Your task to perform on an android device: Open Android settings Image 0: 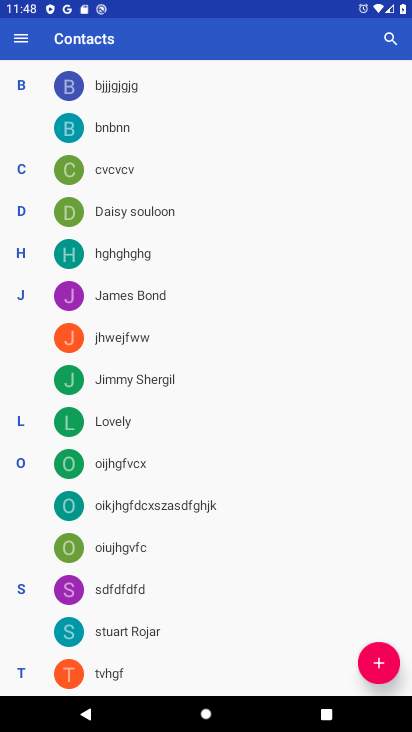
Step 0: press home button
Your task to perform on an android device: Open Android settings Image 1: 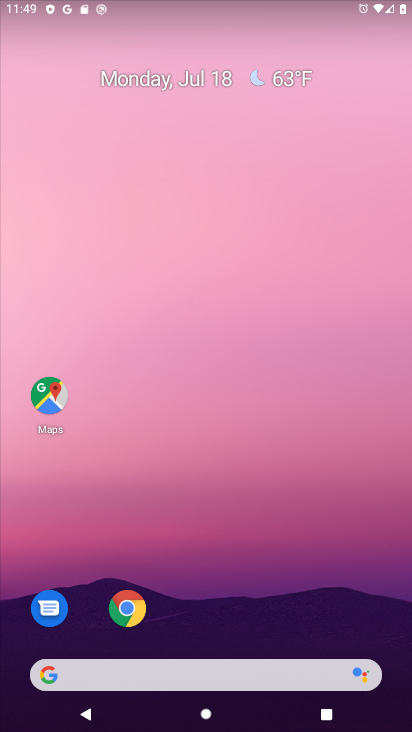
Step 1: click (233, 246)
Your task to perform on an android device: Open Android settings Image 2: 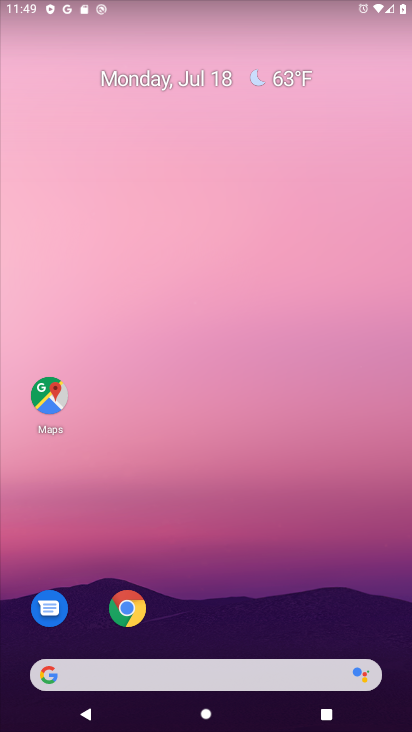
Step 2: drag from (267, 642) to (271, 27)
Your task to perform on an android device: Open Android settings Image 3: 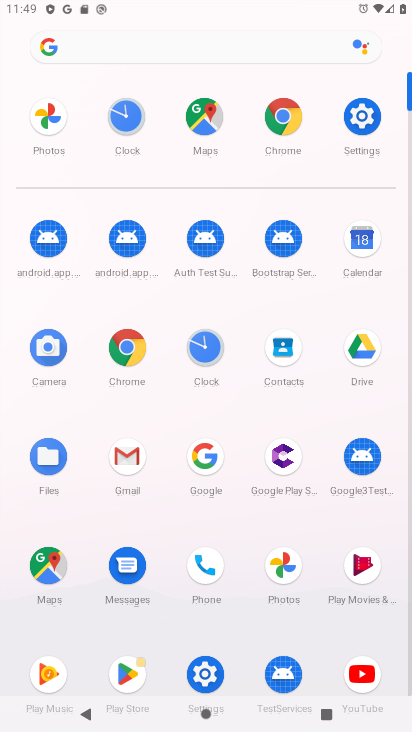
Step 3: click (360, 105)
Your task to perform on an android device: Open Android settings Image 4: 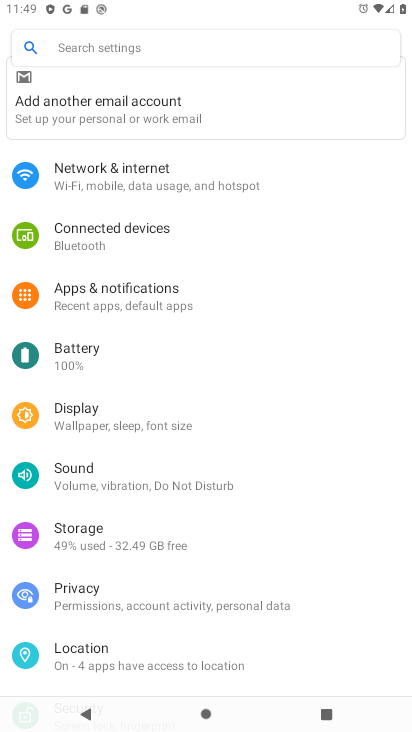
Step 4: drag from (192, 596) to (158, 14)
Your task to perform on an android device: Open Android settings Image 5: 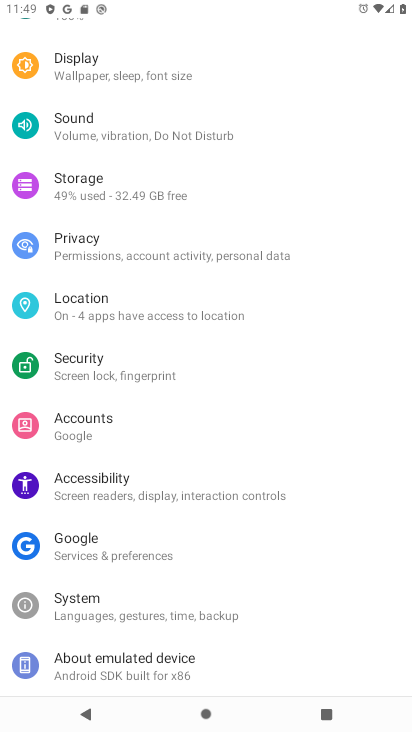
Step 5: click (115, 614)
Your task to perform on an android device: Open Android settings Image 6: 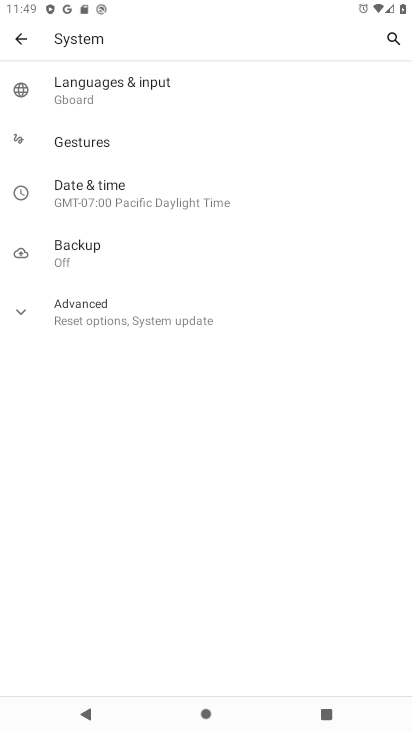
Step 6: task complete